Your task to perform on an android device: Open wifi settings Image 0: 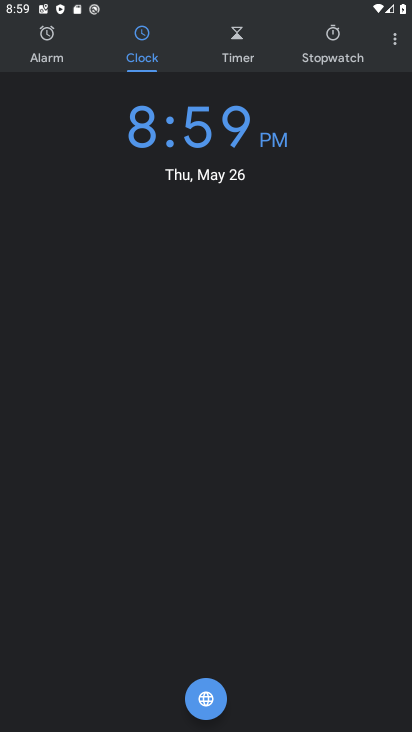
Step 0: press back button
Your task to perform on an android device: Open wifi settings Image 1: 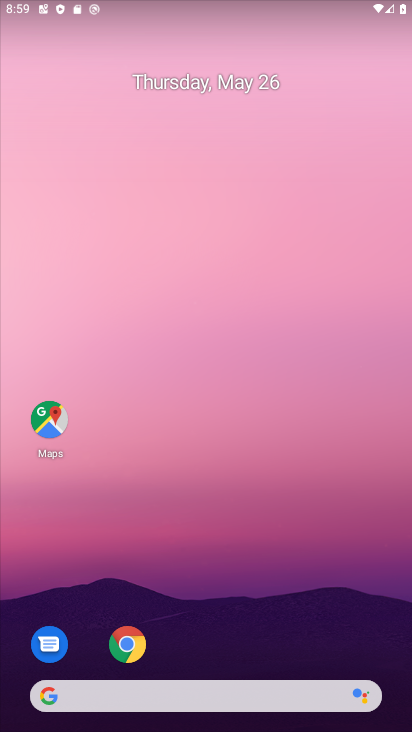
Step 1: drag from (74, 4) to (123, 580)
Your task to perform on an android device: Open wifi settings Image 2: 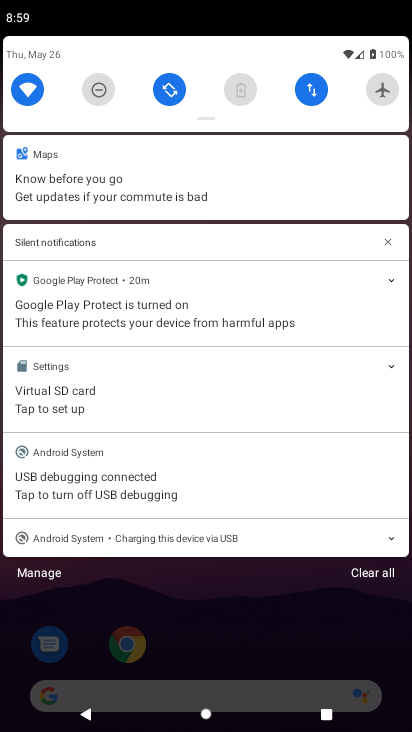
Step 2: click (28, 81)
Your task to perform on an android device: Open wifi settings Image 3: 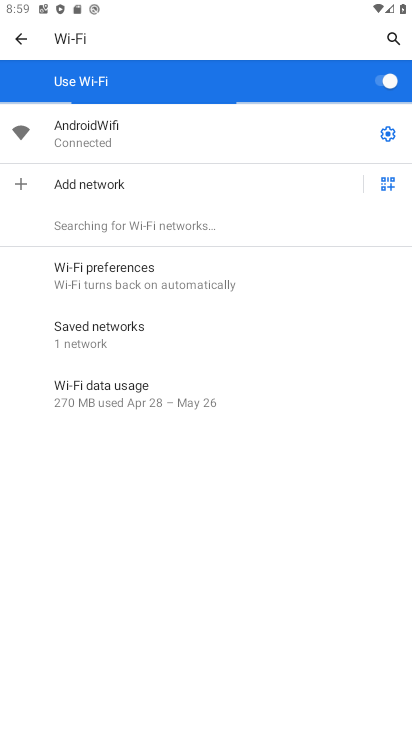
Step 3: task complete